Your task to perform on an android device: turn off location history Image 0: 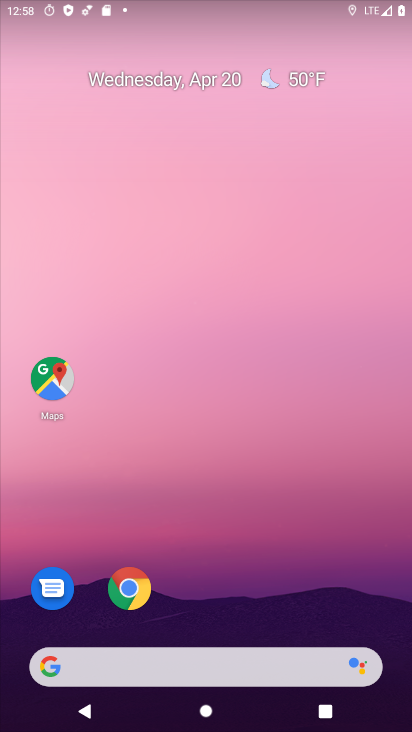
Step 0: click (156, 6)
Your task to perform on an android device: turn off location history Image 1: 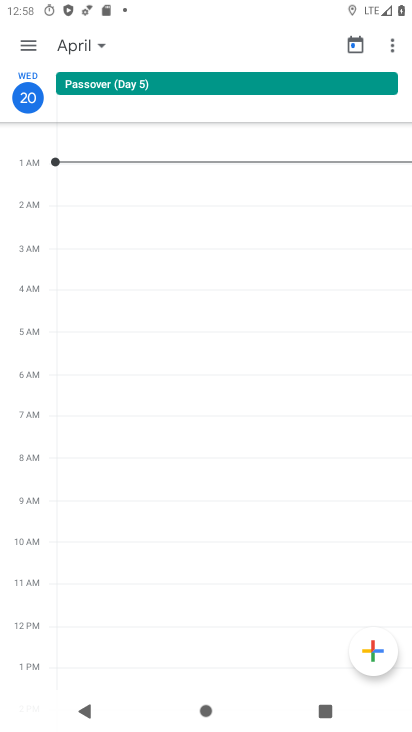
Step 1: press home button
Your task to perform on an android device: turn off location history Image 2: 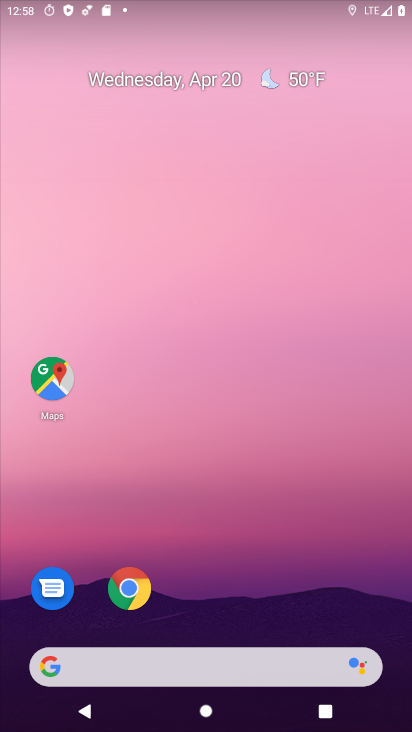
Step 2: drag from (220, 626) to (210, 59)
Your task to perform on an android device: turn off location history Image 3: 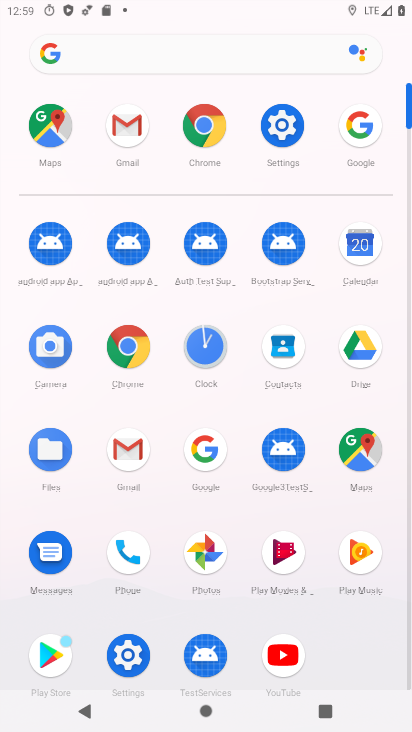
Step 3: click (279, 135)
Your task to perform on an android device: turn off location history Image 4: 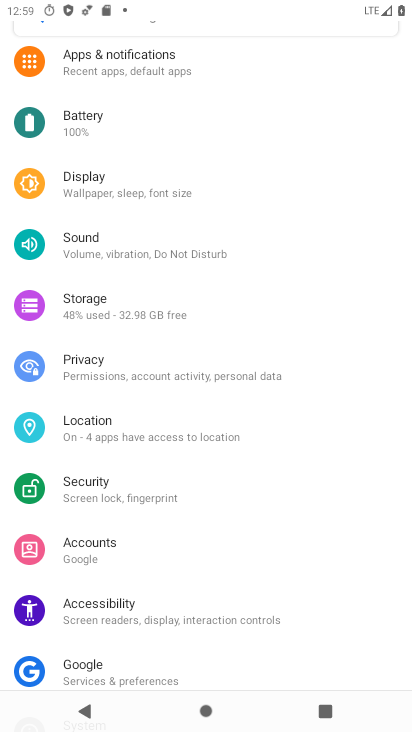
Step 4: click (113, 417)
Your task to perform on an android device: turn off location history Image 5: 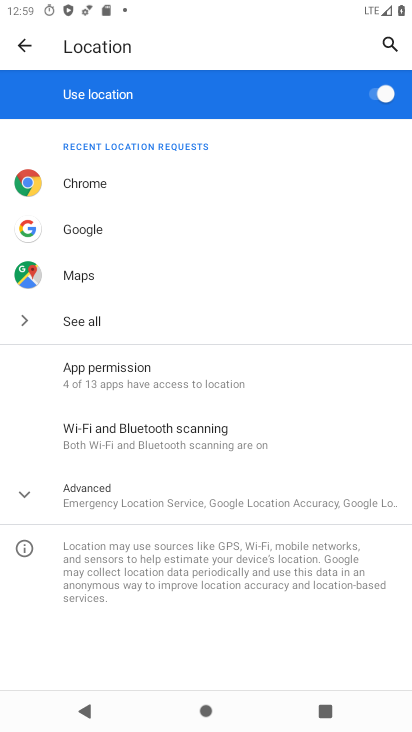
Step 5: click (146, 503)
Your task to perform on an android device: turn off location history Image 6: 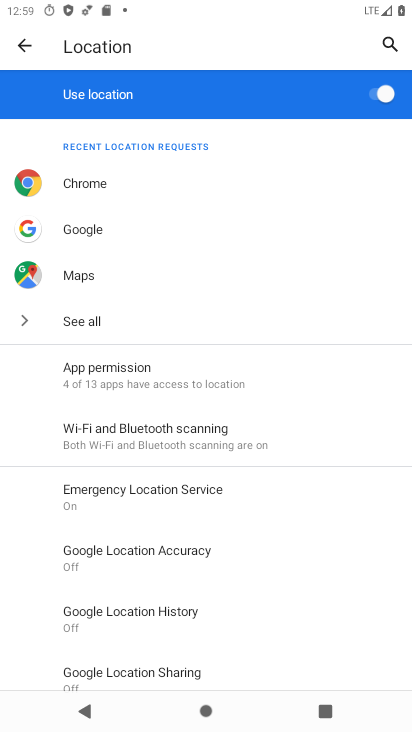
Step 6: click (173, 617)
Your task to perform on an android device: turn off location history Image 7: 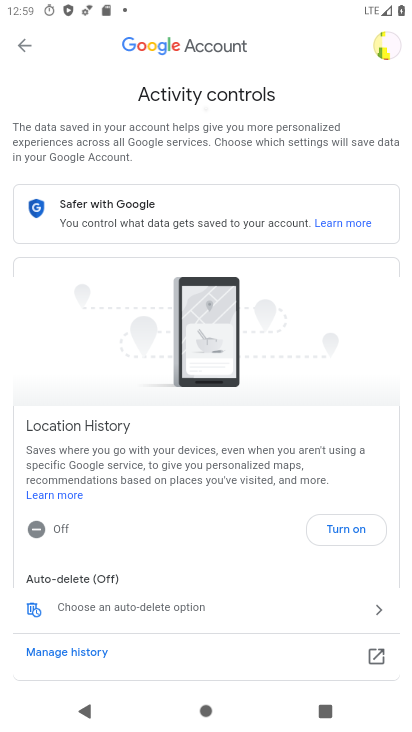
Step 7: click (332, 534)
Your task to perform on an android device: turn off location history Image 8: 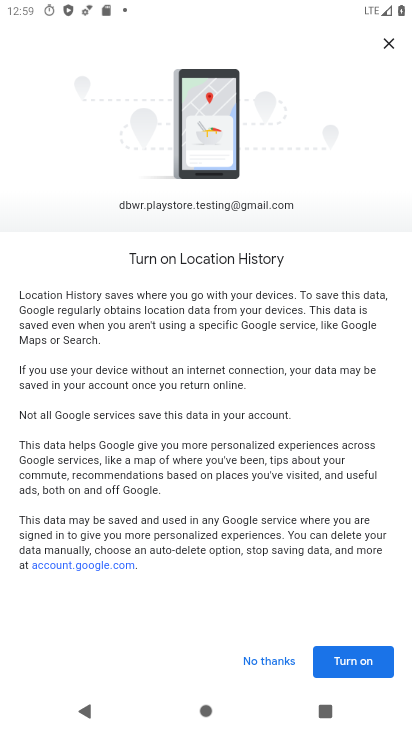
Step 8: click (332, 532)
Your task to perform on an android device: turn off location history Image 9: 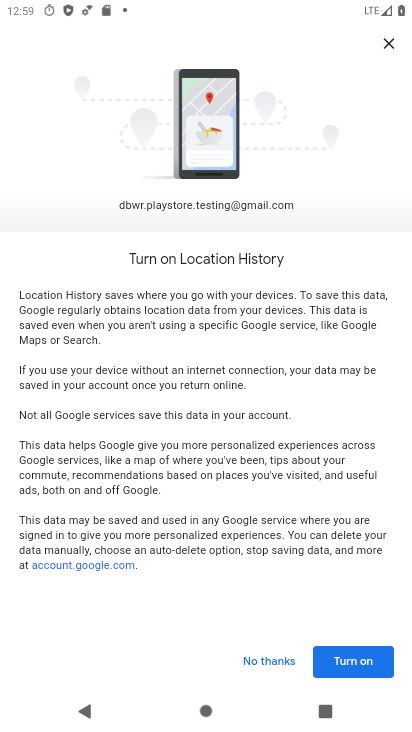
Step 9: click (350, 658)
Your task to perform on an android device: turn off location history Image 10: 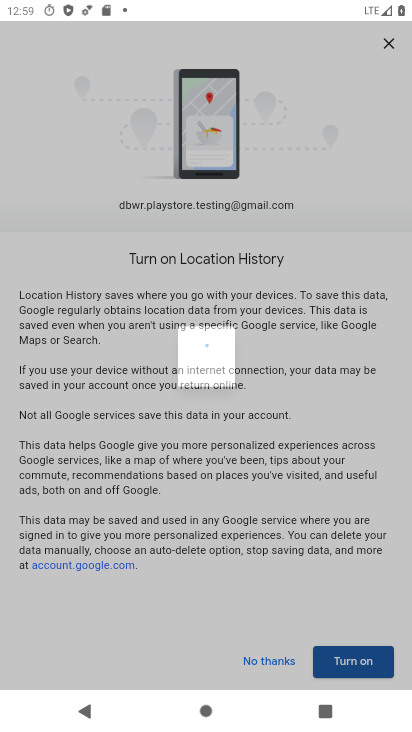
Step 10: click (350, 658)
Your task to perform on an android device: turn off location history Image 11: 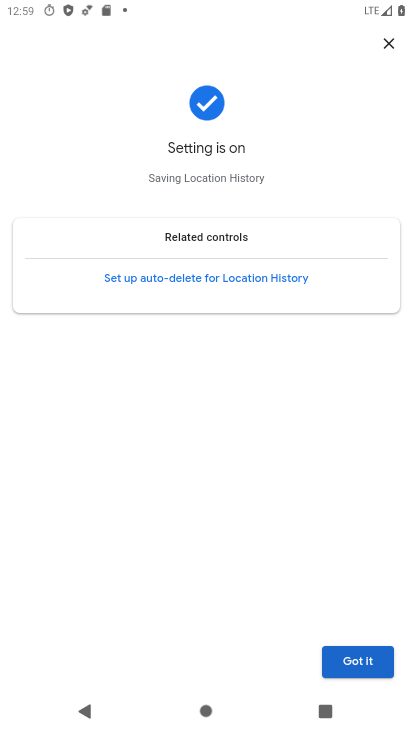
Step 11: click (374, 673)
Your task to perform on an android device: turn off location history Image 12: 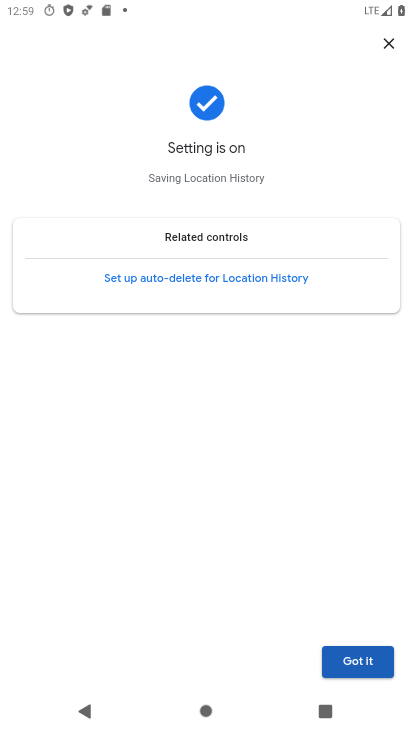
Step 12: click (352, 653)
Your task to perform on an android device: turn off location history Image 13: 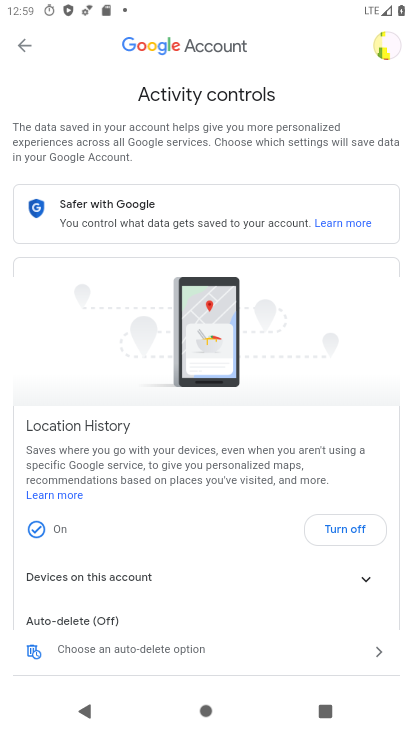
Step 13: task complete